Your task to perform on an android device: find photos in the google photos app Image 0: 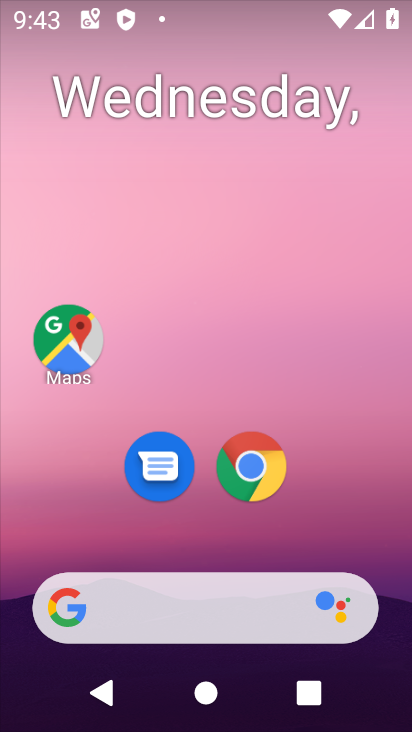
Step 0: drag from (350, 555) to (230, 285)
Your task to perform on an android device: find photos in the google photos app Image 1: 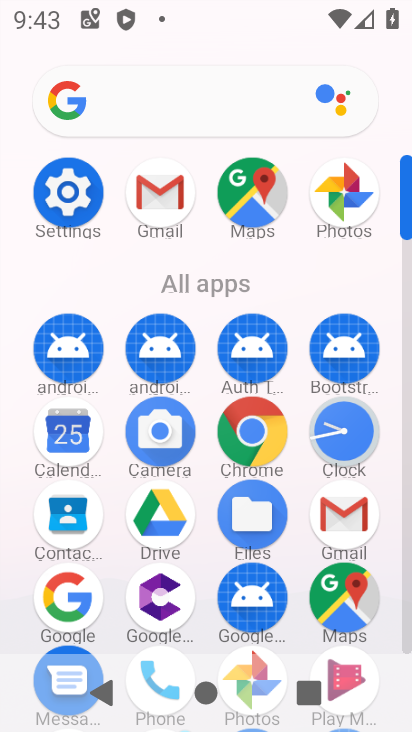
Step 1: click (348, 212)
Your task to perform on an android device: find photos in the google photos app Image 2: 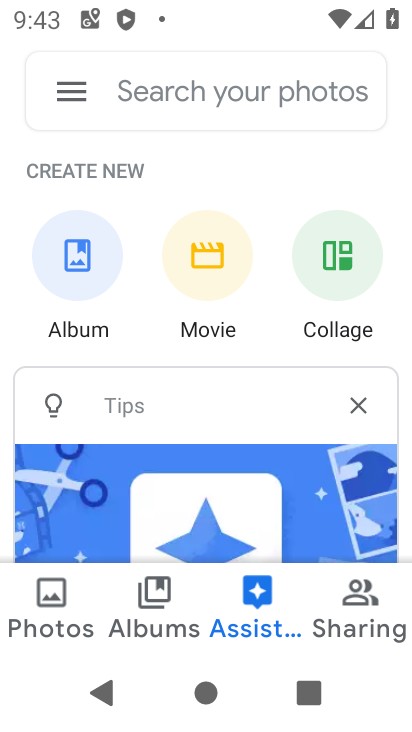
Step 2: click (43, 607)
Your task to perform on an android device: find photos in the google photos app Image 3: 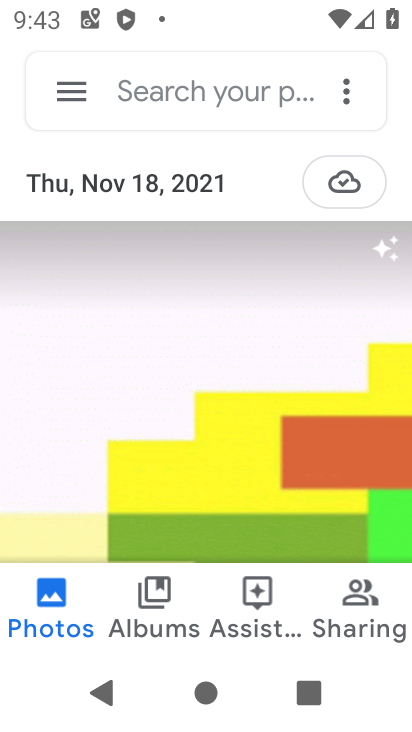
Step 3: task complete